Your task to perform on an android device: turn off data saver in the chrome app Image 0: 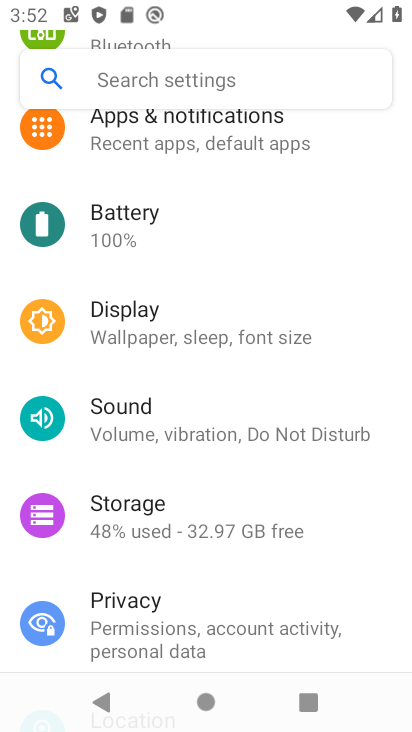
Step 0: press home button
Your task to perform on an android device: turn off data saver in the chrome app Image 1: 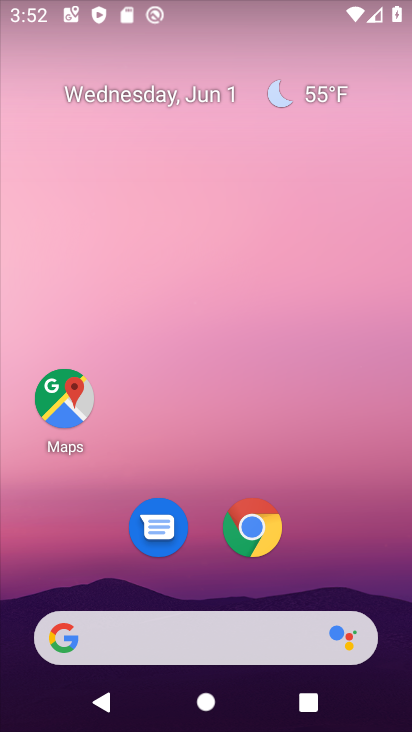
Step 1: drag from (318, 547) to (308, 13)
Your task to perform on an android device: turn off data saver in the chrome app Image 2: 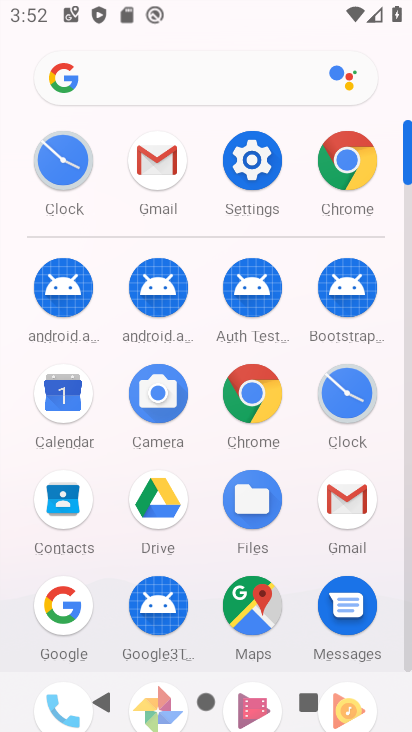
Step 2: click (251, 419)
Your task to perform on an android device: turn off data saver in the chrome app Image 3: 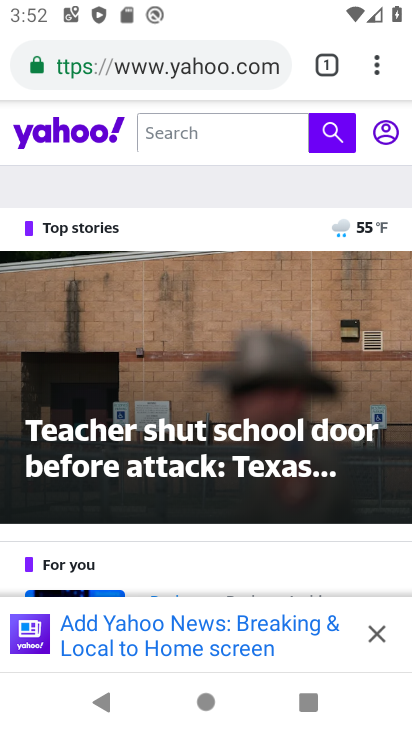
Step 3: click (377, 55)
Your task to perform on an android device: turn off data saver in the chrome app Image 4: 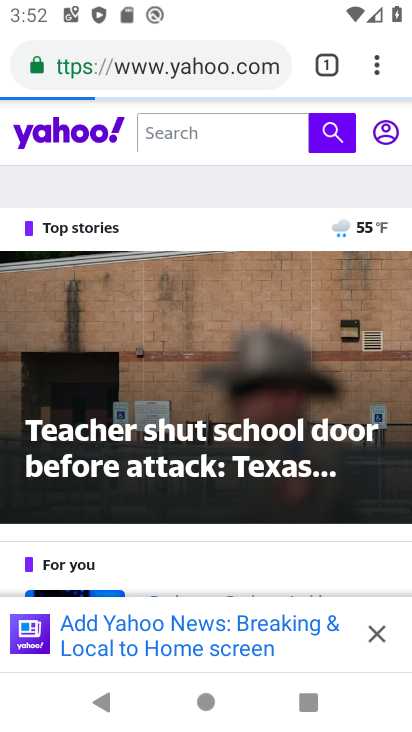
Step 4: drag from (377, 55) to (139, 571)
Your task to perform on an android device: turn off data saver in the chrome app Image 5: 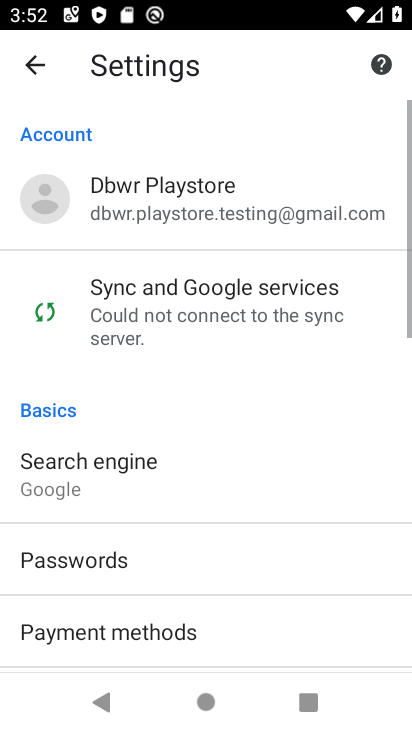
Step 5: drag from (194, 610) to (214, 172)
Your task to perform on an android device: turn off data saver in the chrome app Image 6: 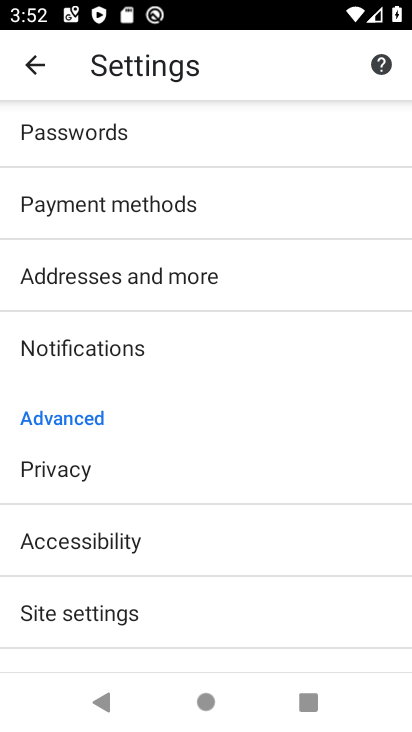
Step 6: drag from (209, 621) to (235, 231)
Your task to perform on an android device: turn off data saver in the chrome app Image 7: 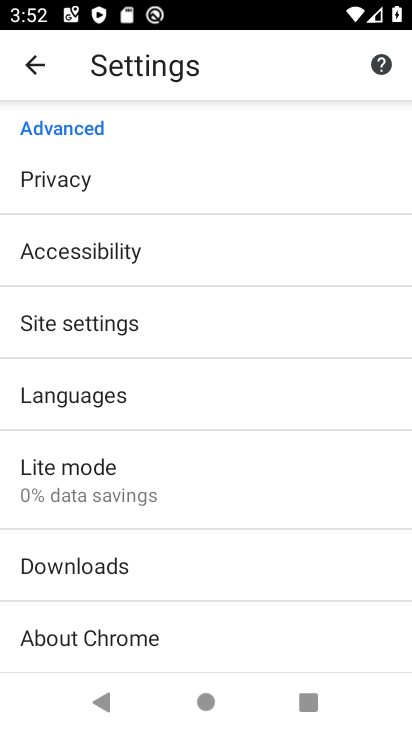
Step 7: click (28, 468)
Your task to perform on an android device: turn off data saver in the chrome app Image 8: 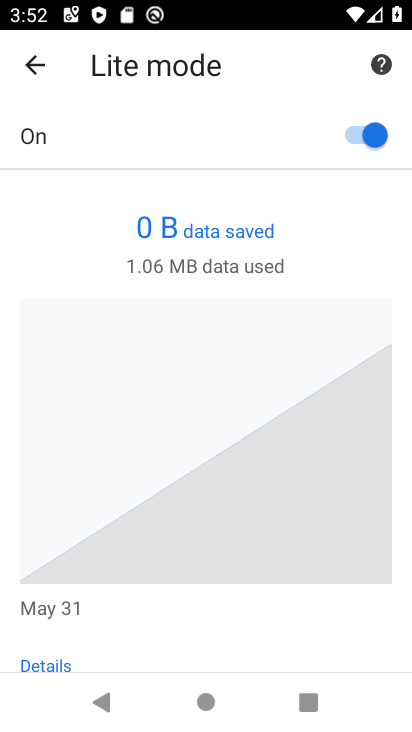
Step 8: click (365, 142)
Your task to perform on an android device: turn off data saver in the chrome app Image 9: 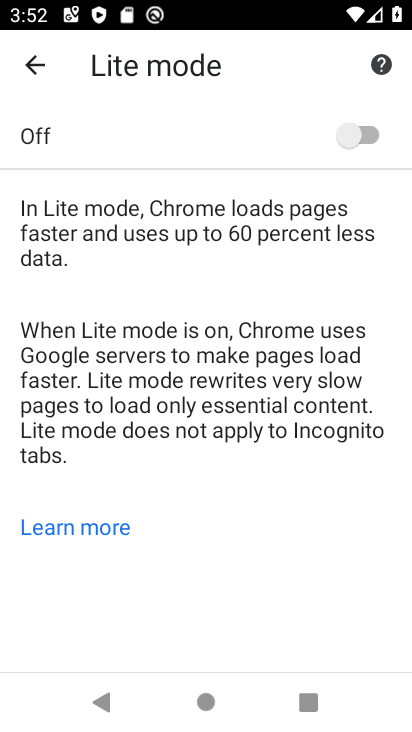
Step 9: task complete